Your task to perform on an android device: delete the emails in spam in the gmail app Image 0: 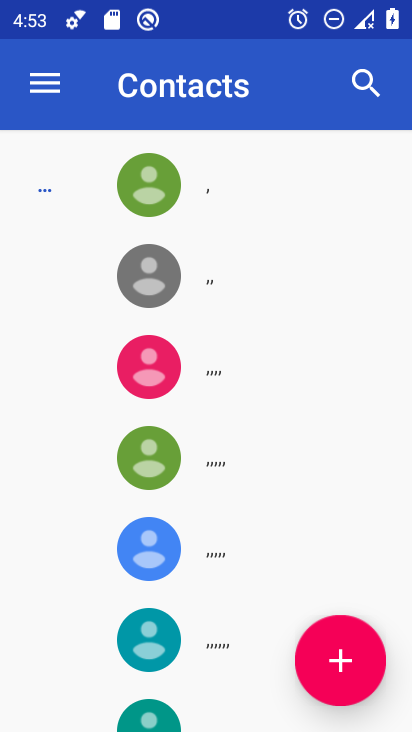
Step 0: press home button
Your task to perform on an android device: delete the emails in spam in the gmail app Image 1: 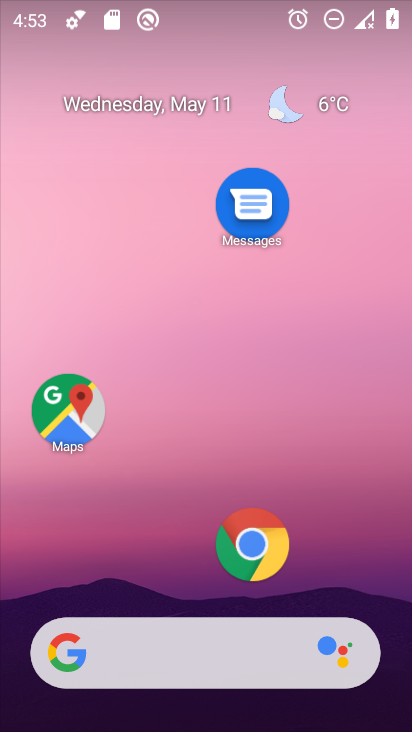
Step 1: drag from (115, 553) to (301, 36)
Your task to perform on an android device: delete the emails in spam in the gmail app Image 2: 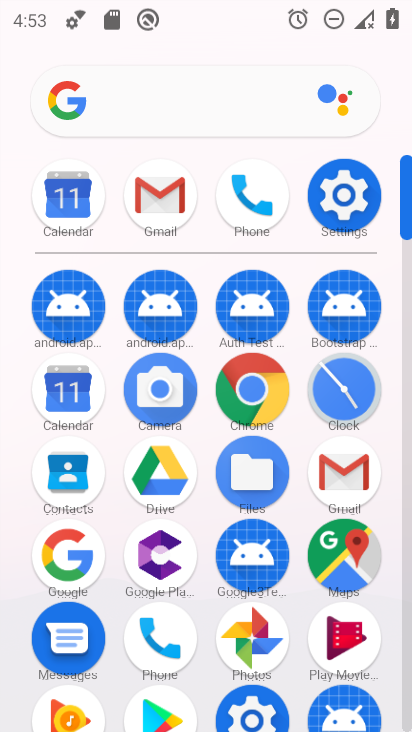
Step 2: click (139, 189)
Your task to perform on an android device: delete the emails in spam in the gmail app Image 3: 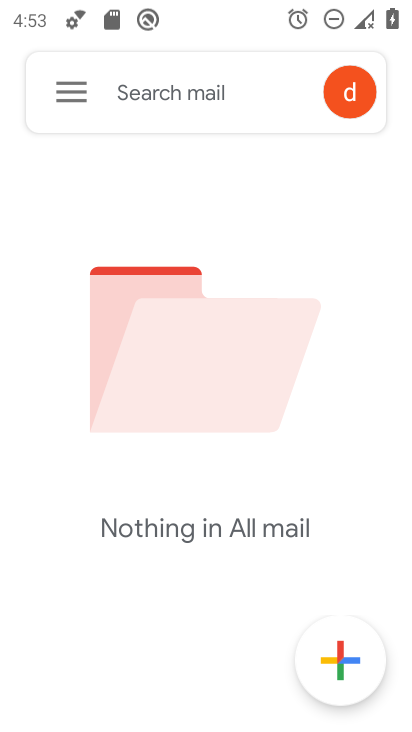
Step 3: click (66, 84)
Your task to perform on an android device: delete the emails in spam in the gmail app Image 4: 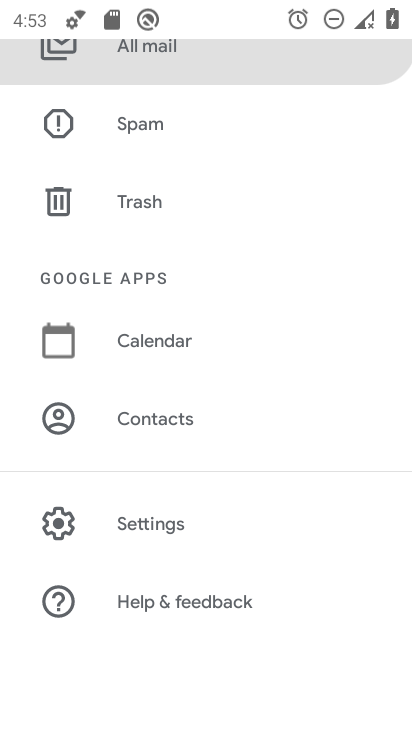
Step 4: drag from (207, 143) to (228, 538)
Your task to perform on an android device: delete the emails in spam in the gmail app Image 5: 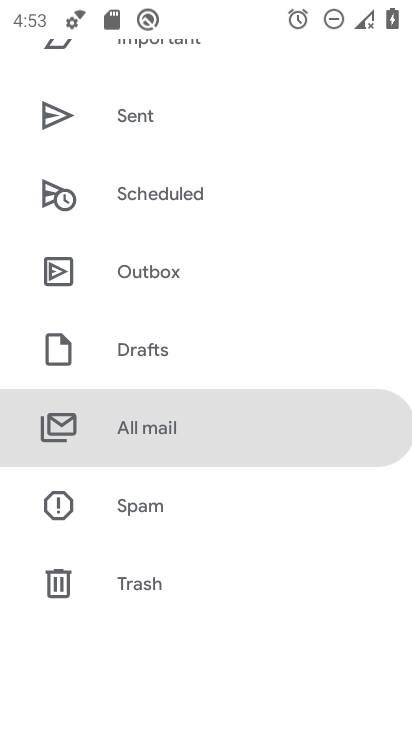
Step 5: drag from (235, 213) to (206, 549)
Your task to perform on an android device: delete the emails in spam in the gmail app Image 6: 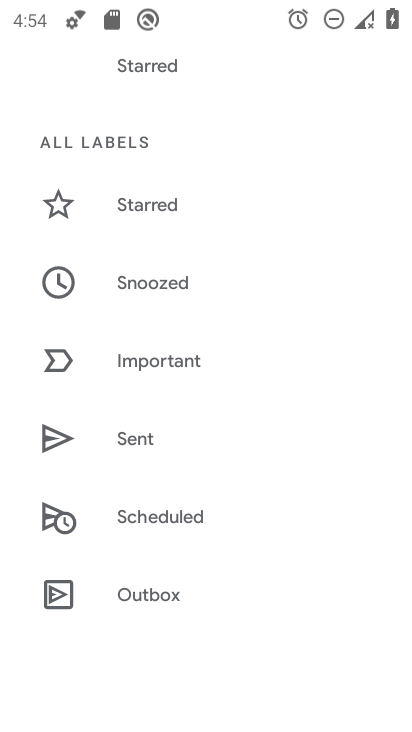
Step 6: drag from (221, 217) to (243, 289)
Your task to perform on an android device: delete the emails in spam in the gmail app Image 7: 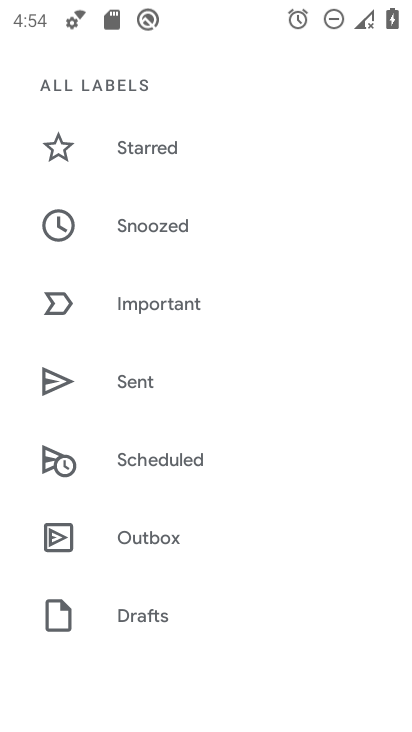
Step 7: drag from (160, 558) to (283, 121)
Your task to perform on an android device: delete the emails in spam in the gmail app Image 8: 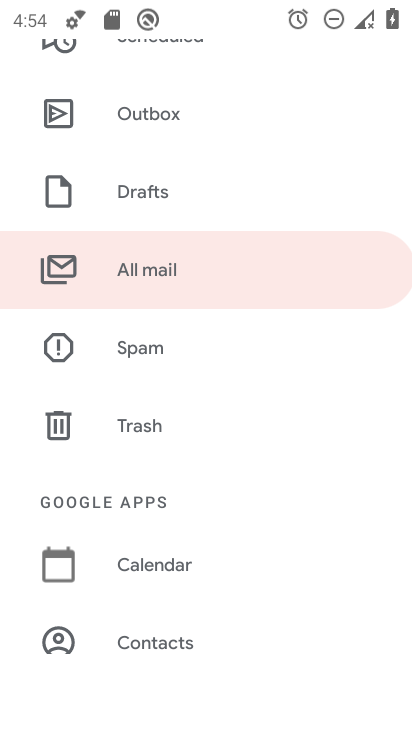
Step 8: click (139, 249)
Your task to perform on an android device: delete the emails in spam in the gmail app Image 9: 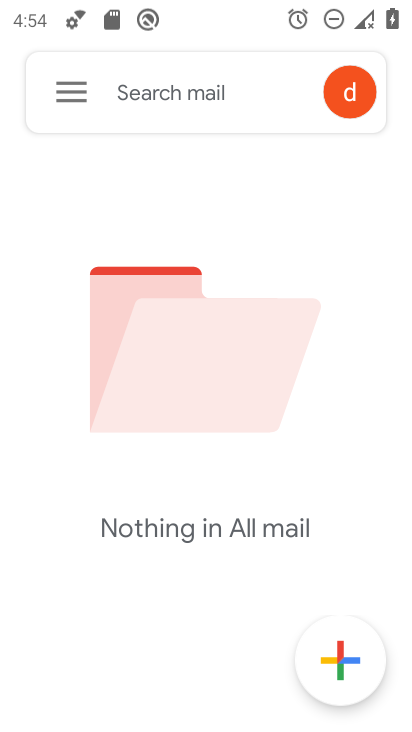
Step 9: click (64, 82)
Your task to perform on an android device: delete the emails in spam in the gmail app Image 10: 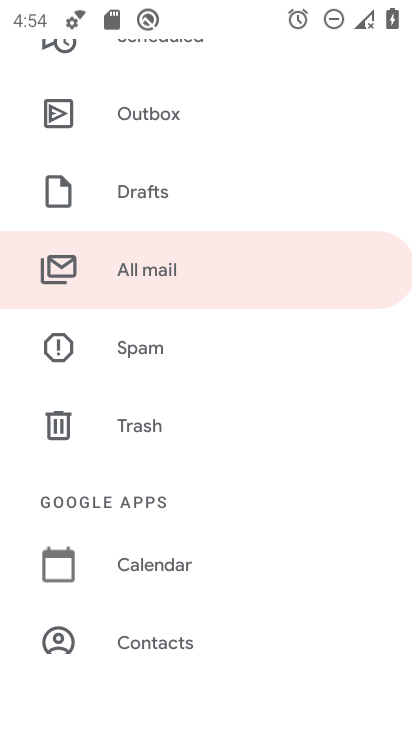
Step 10: click (134, 354)
Your task to perform on an android device: delete the emails in spam in the gmail app Image 11: 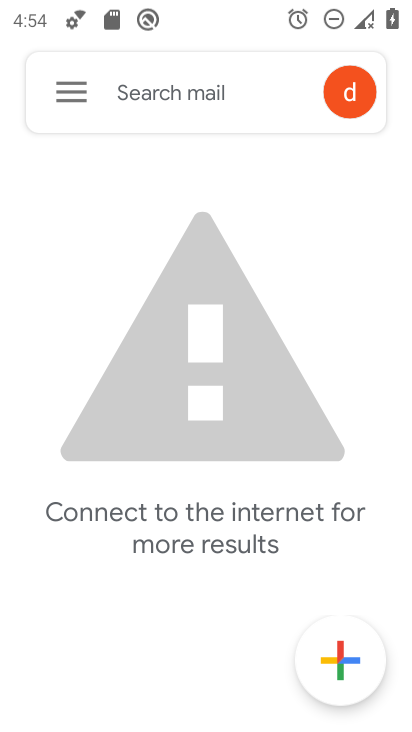
Step 11: task complete